Your task to perform on an android device: Search for razer blade on walmart, select the first entry, add it to the cart, then select checkout. Image 0: 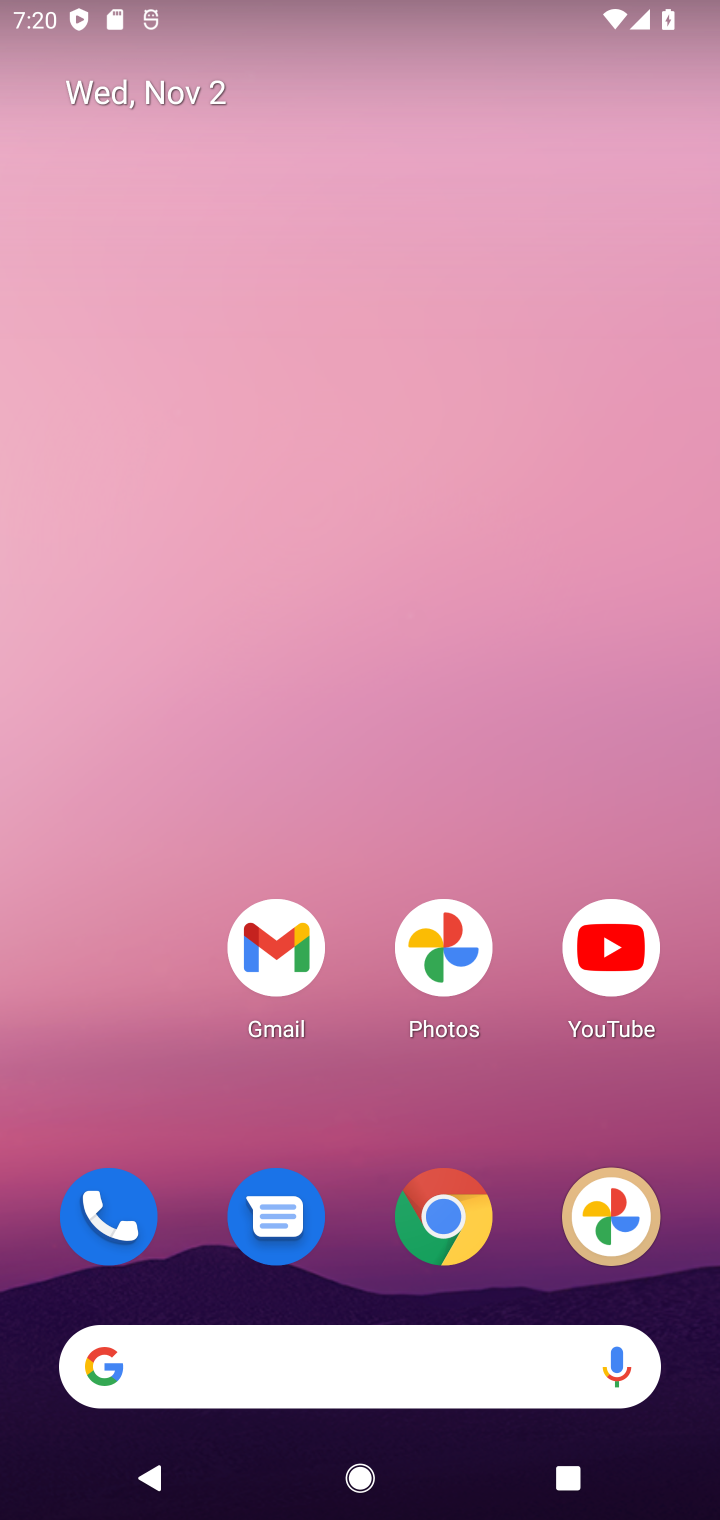
Step 0: click (465, 1190)
Your task to perform on an android device: Search for razer blade on walmart, select the first entry, add it to the cart, then select checkout. Image 1: 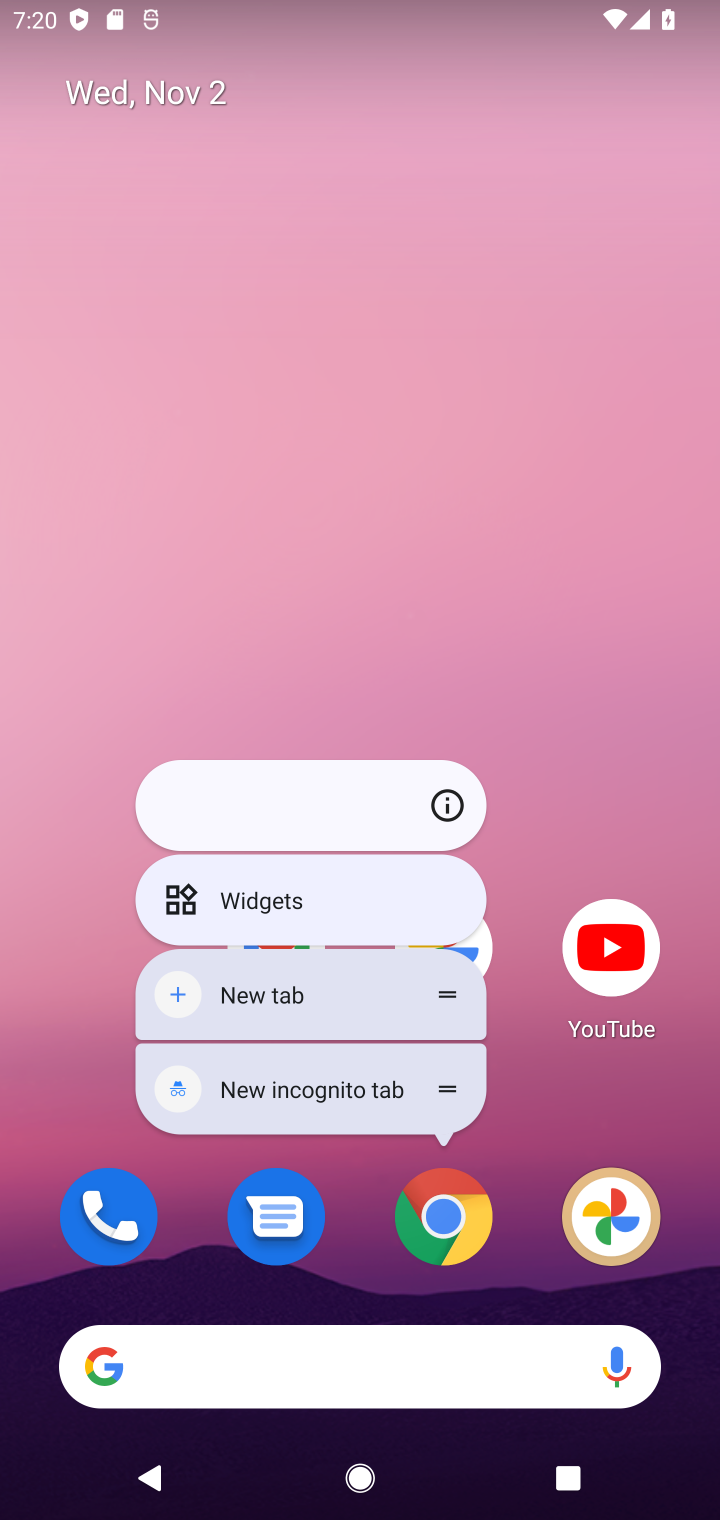
Step 1: click (465, 1190)
Your task to perform on an android device: Search for razer blade on walmart, select the first entry, add it to the cart, then select checkout. Image 2: 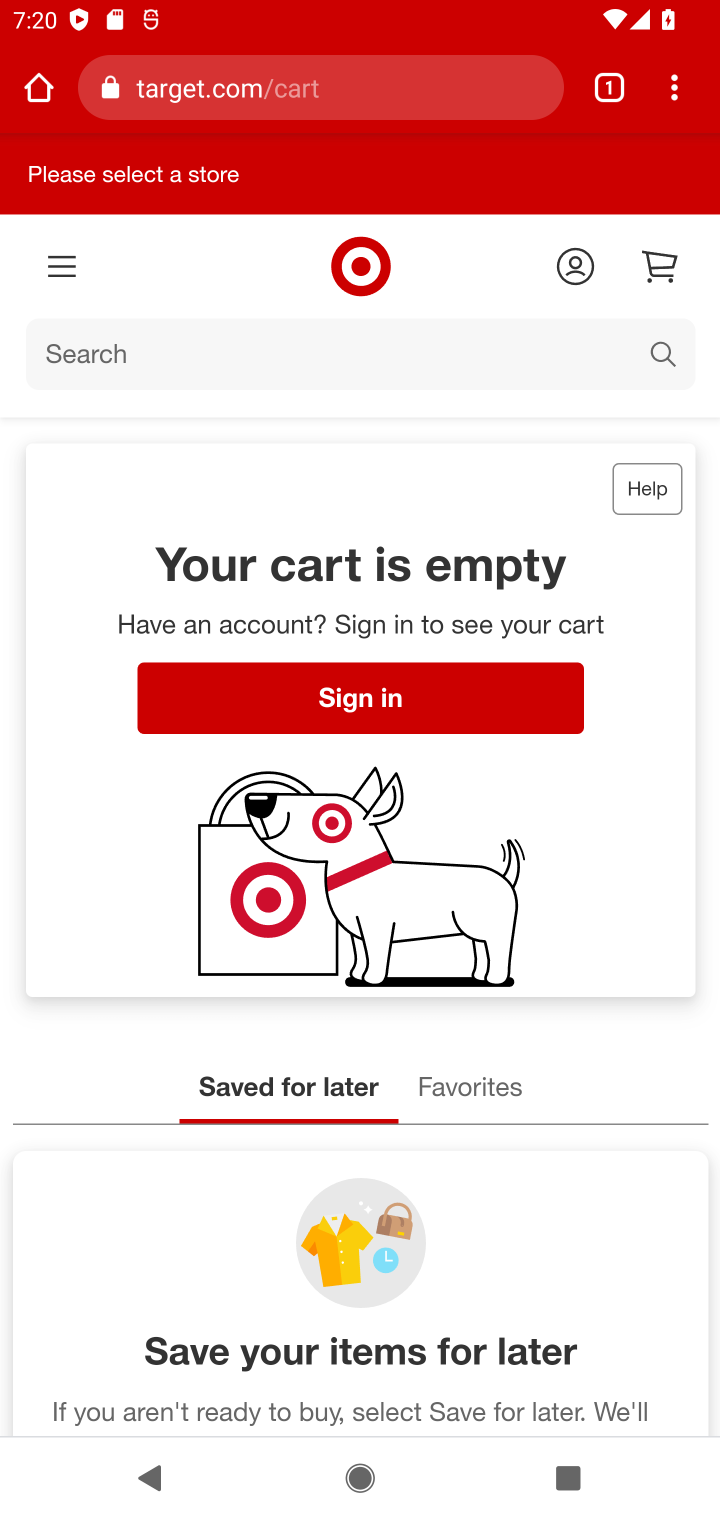
Step 2: click (318, 72)
Your task to perform on an android device: Search for razer blade on walmart, select the first entry, add it to the cart, then select checkout. Image 3: 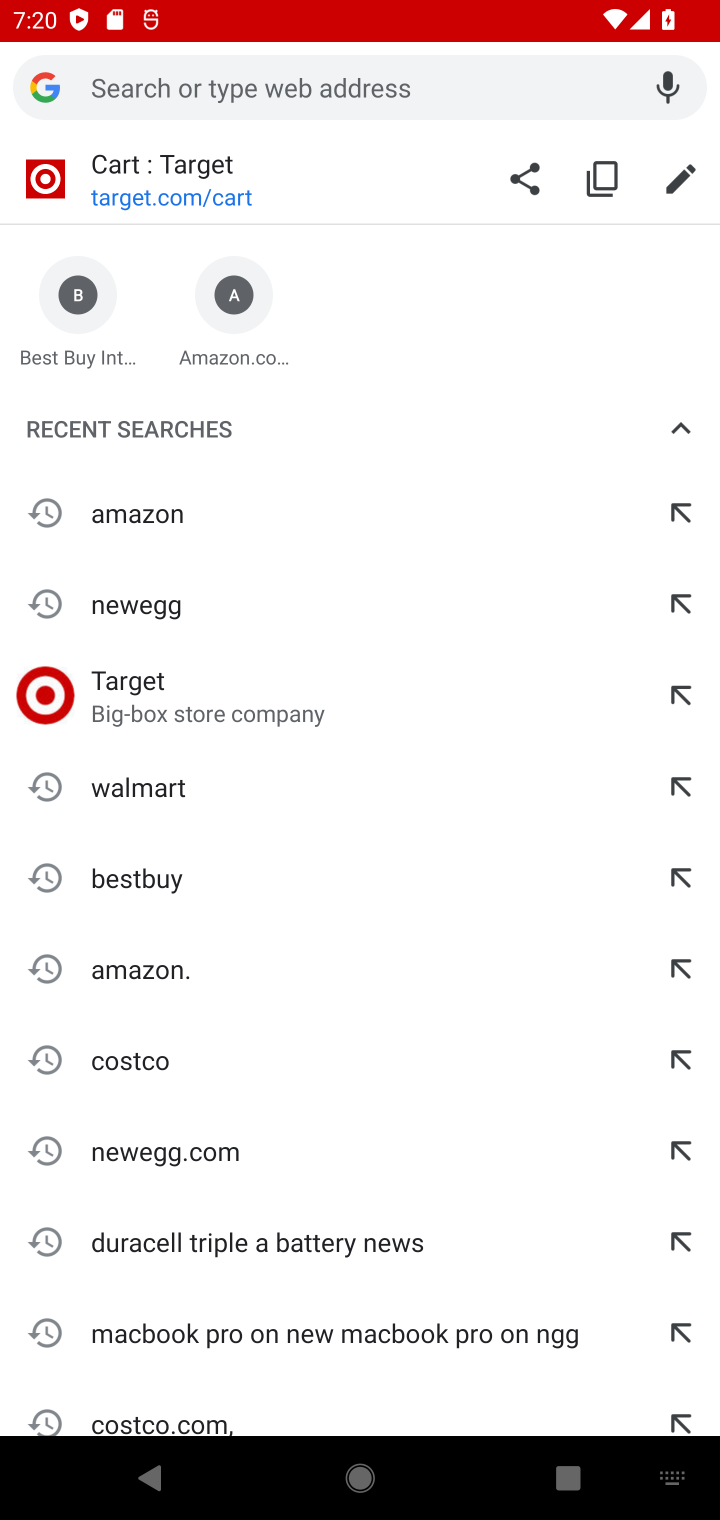
Step 3: type "walmart"
Your task to perform on an android device: Search for razer blade on walmart, select the first entry, add it to the cart, then select checkout. Image 4: 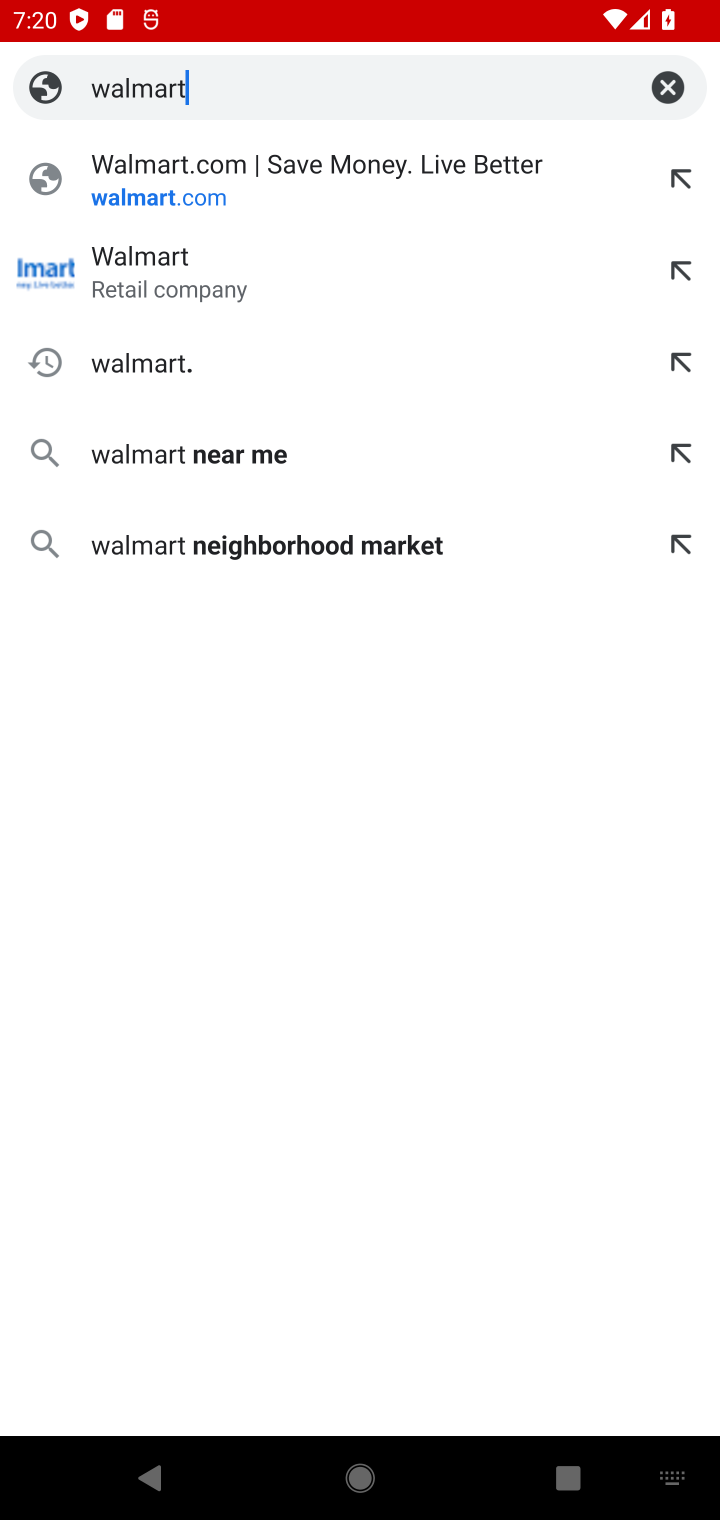
Step 4: click (384, 181)
Your task to perform on an android device: Search for razer blade on walmart, select the first entry, add it to the cart, then select checkout. Image 5: 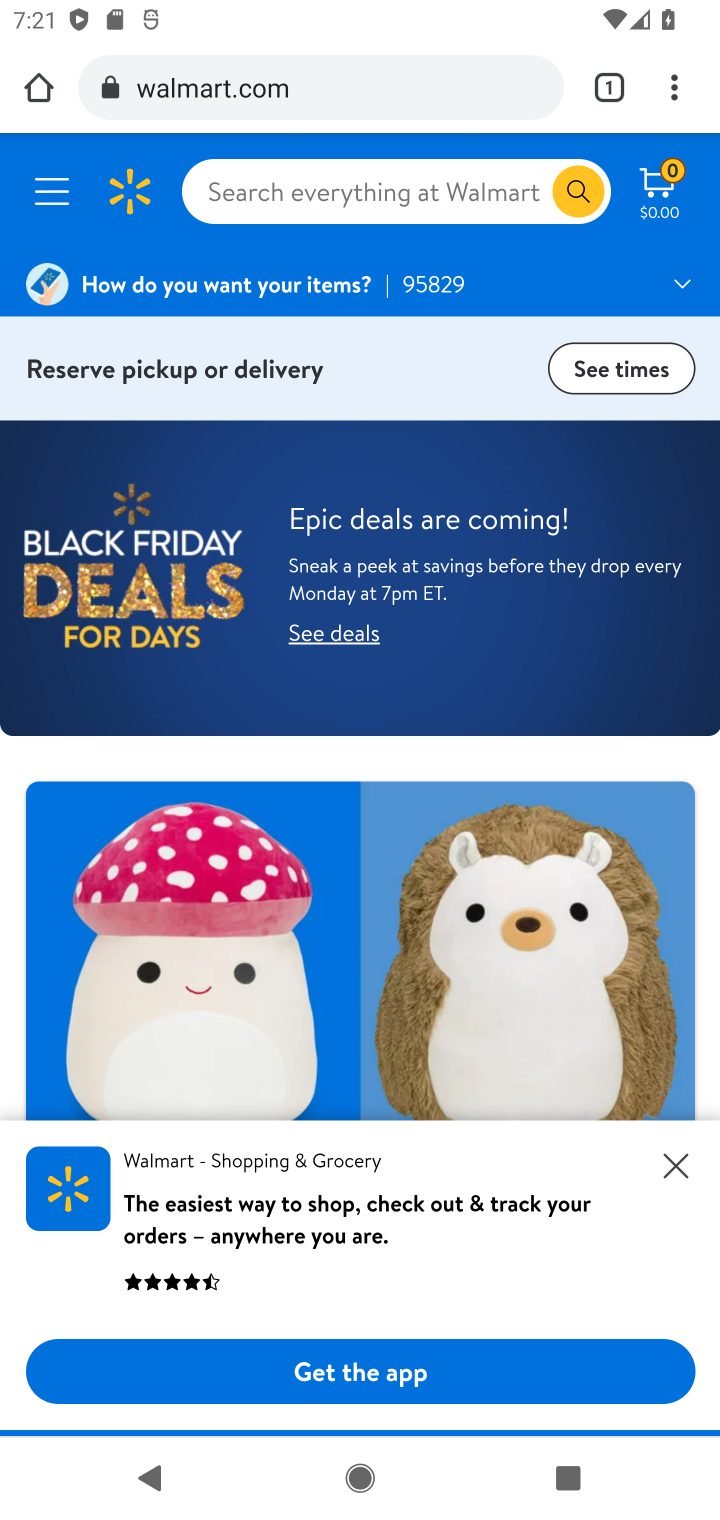
Step 5: click (397, 156)
Your task to perform on an android device: Search for razer blade on walmart, select the first entry, add it to the cart, then select checkout. Image 6: 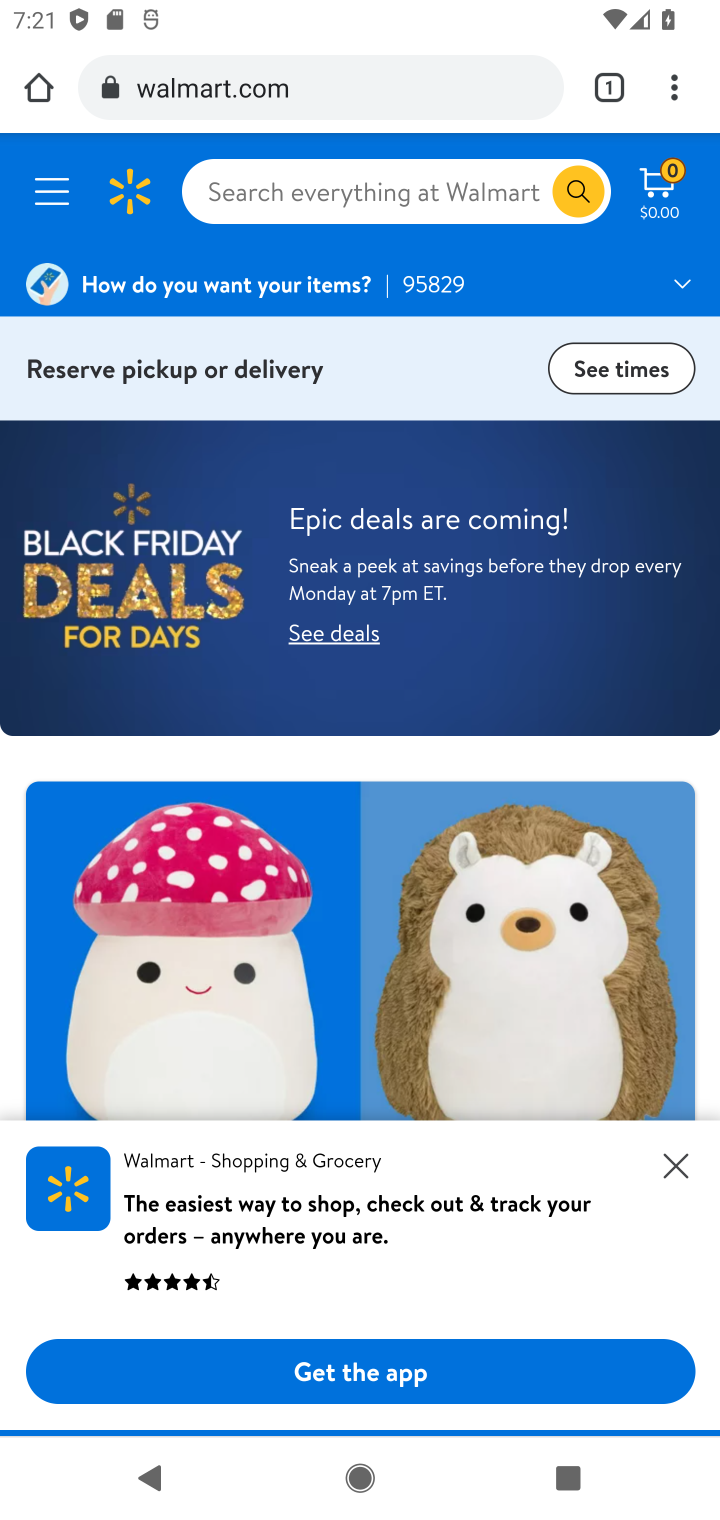
Step 6: click (227, 207)
Your task to perform on an android device: Search for razer blade on walmart, select the first entry, add it to the cart, then select checkout. Image 7: 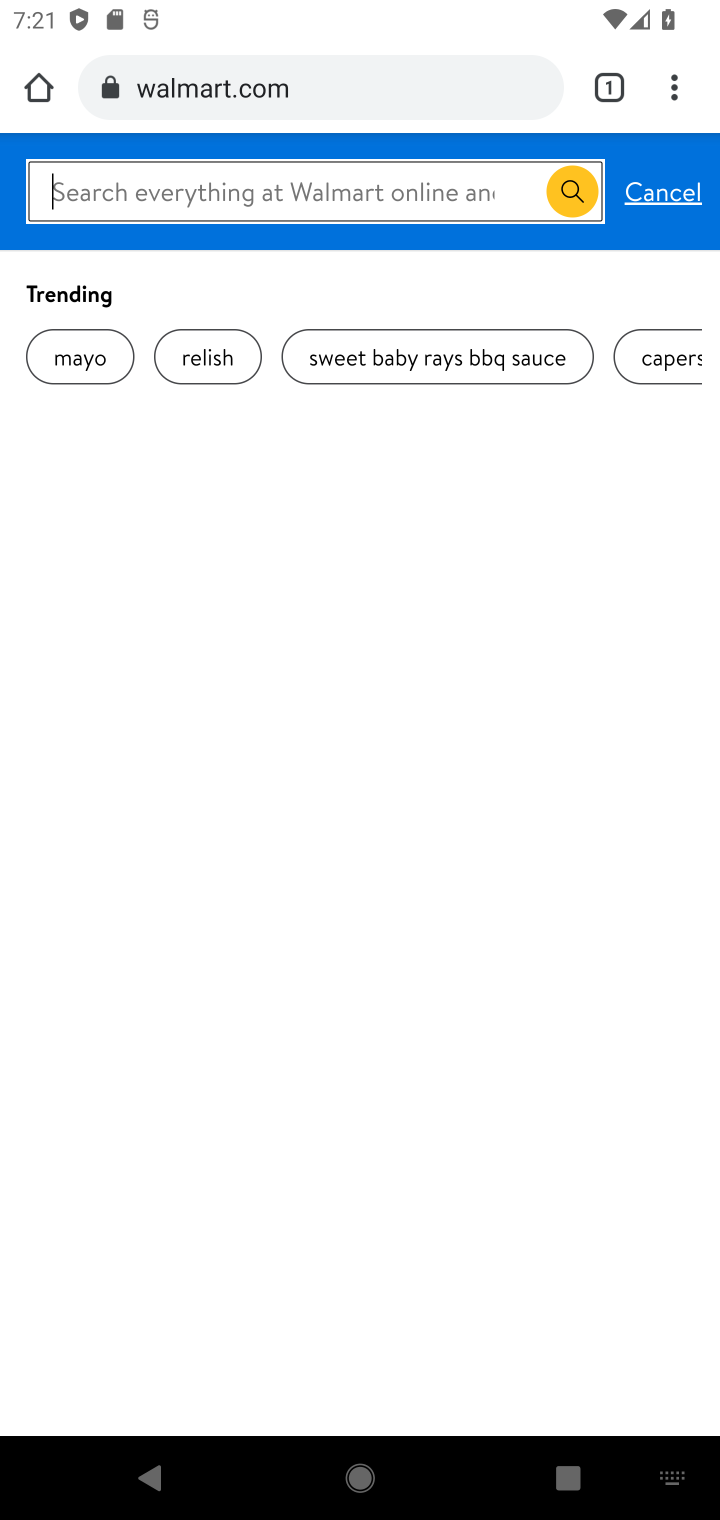
Step 7: type "rzaer blade"
Your task to perform on an android device: Search for razer blade on walmart, select the first entry, add it to the cart, then select checkout. Image 8: 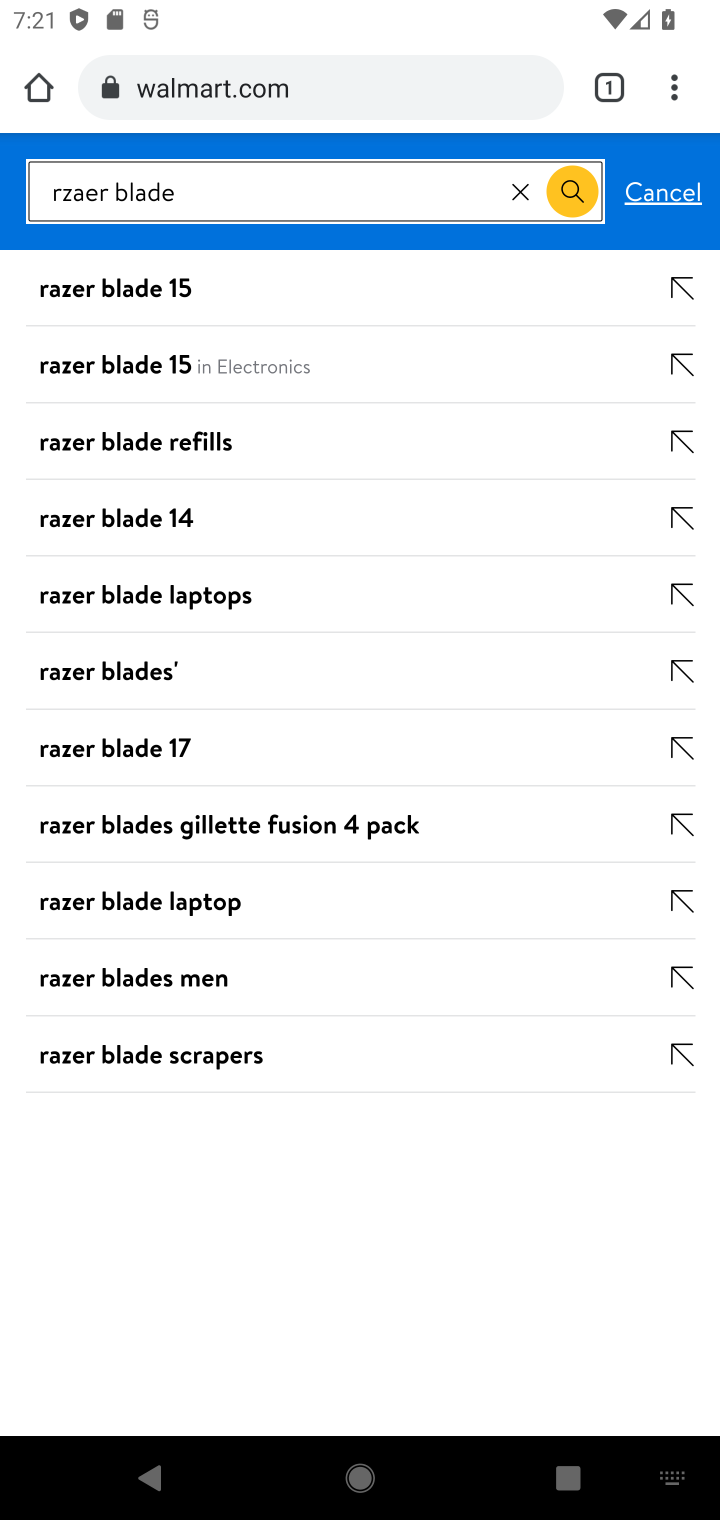
Step 8: press enter
Your task to perform on an android device: Search for razer blade on walmart, select the first entry, add it to the cart, then select checkout. Image 9: 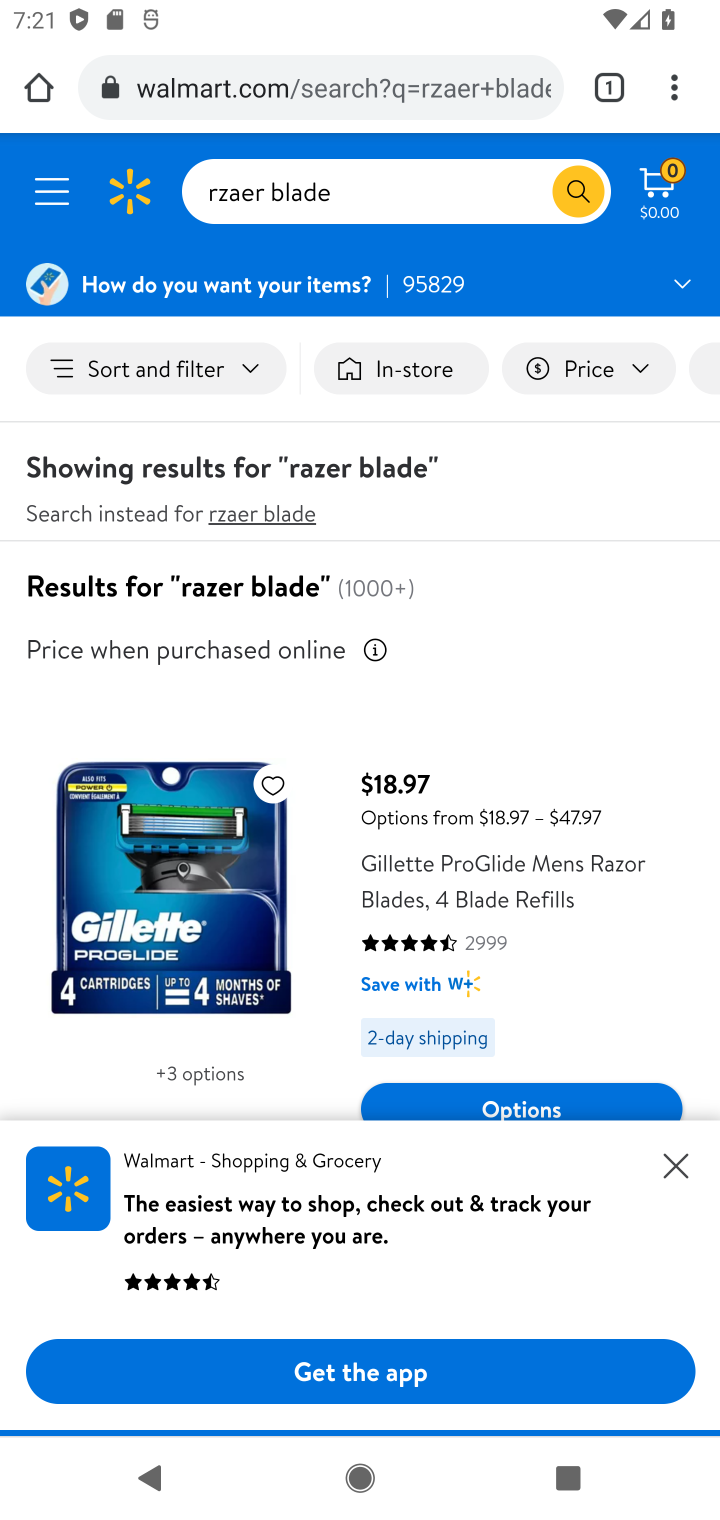
Step 9: click (682, 1161)
Your task to perform on an android device: Search for razer blade on walmart, select the first entry, add it to the cart, then select checkout. Image 10: 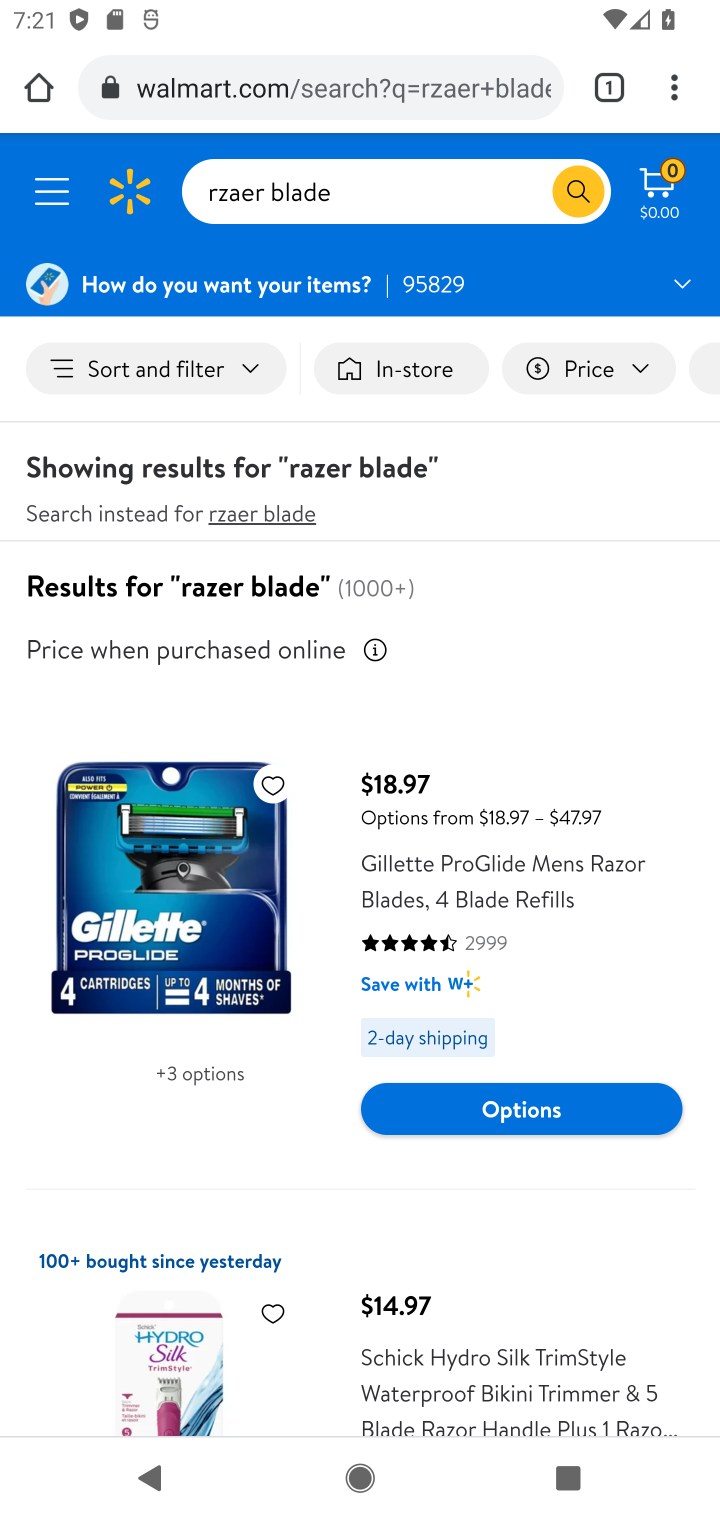
Step 10: click (522, 899)
Your task to perform on an android device: Search for razer blade on walmart, select the first entry, add it to the cart, then select checkout. Image 11: 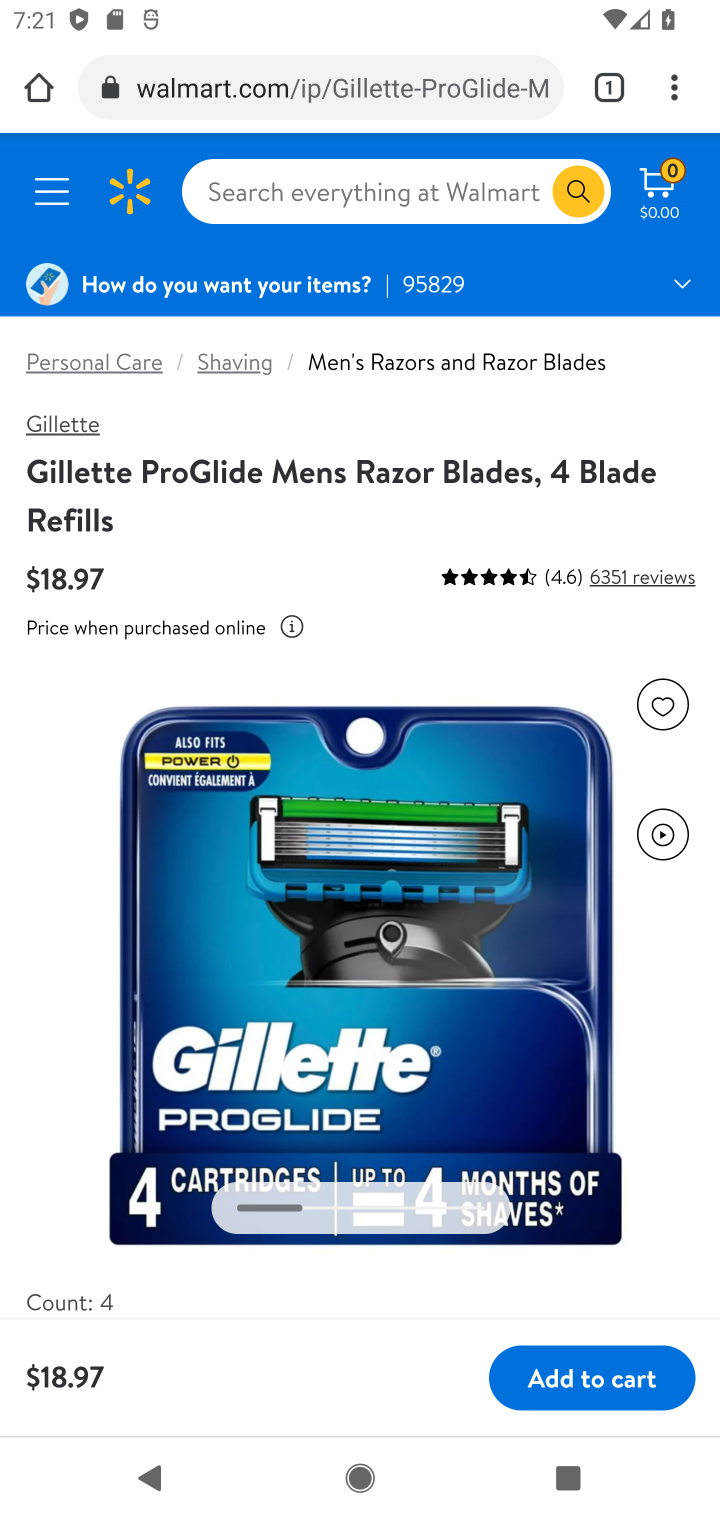
Step 11: click (600, 1376)
Your task to perform on an android device: Search for razer blade on walmart, select the first entry, add it to the cart, then select checkout. Image 12: 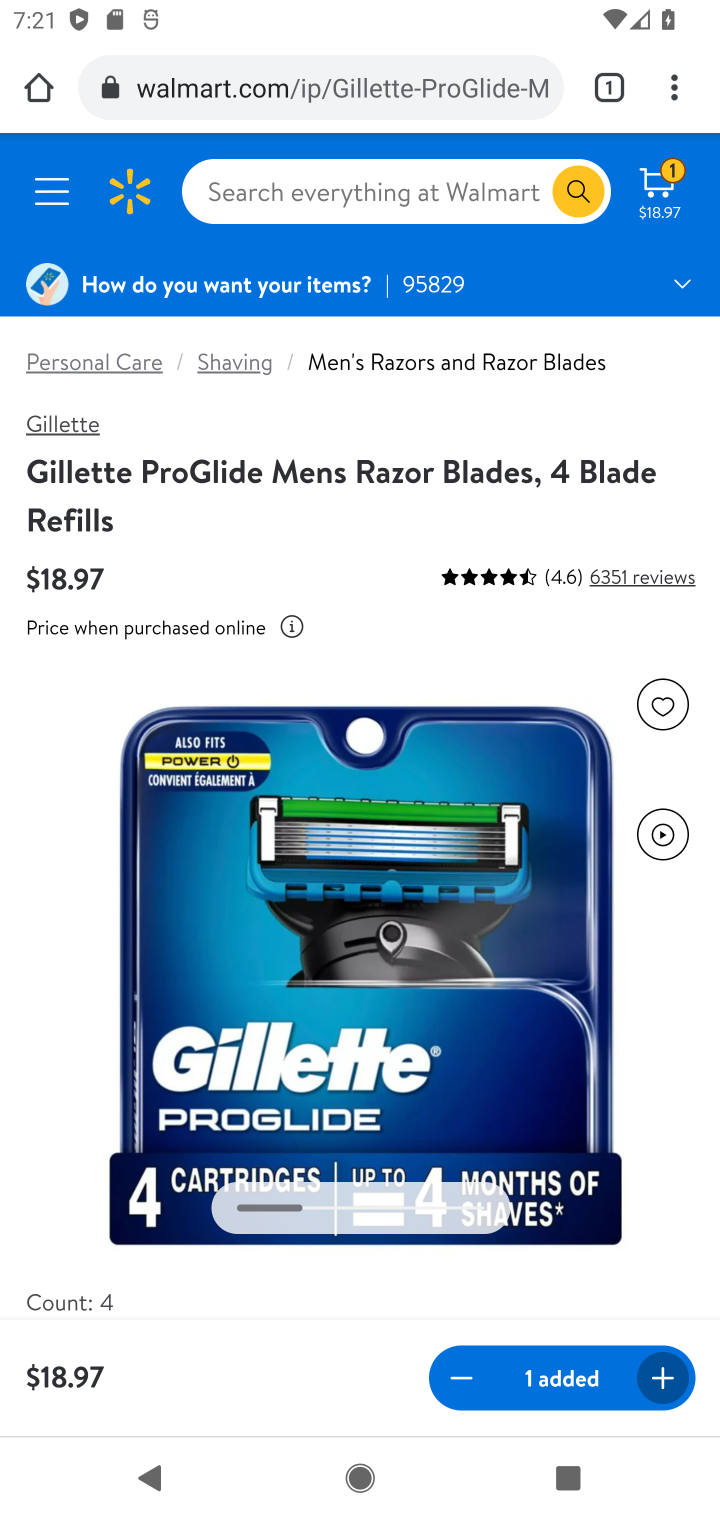
Step 12: click (664, 186)
Your task to perform on an android device: Search for razer blade on walmart, select the first entry, add it to the cart, then select checkout. Image 13: 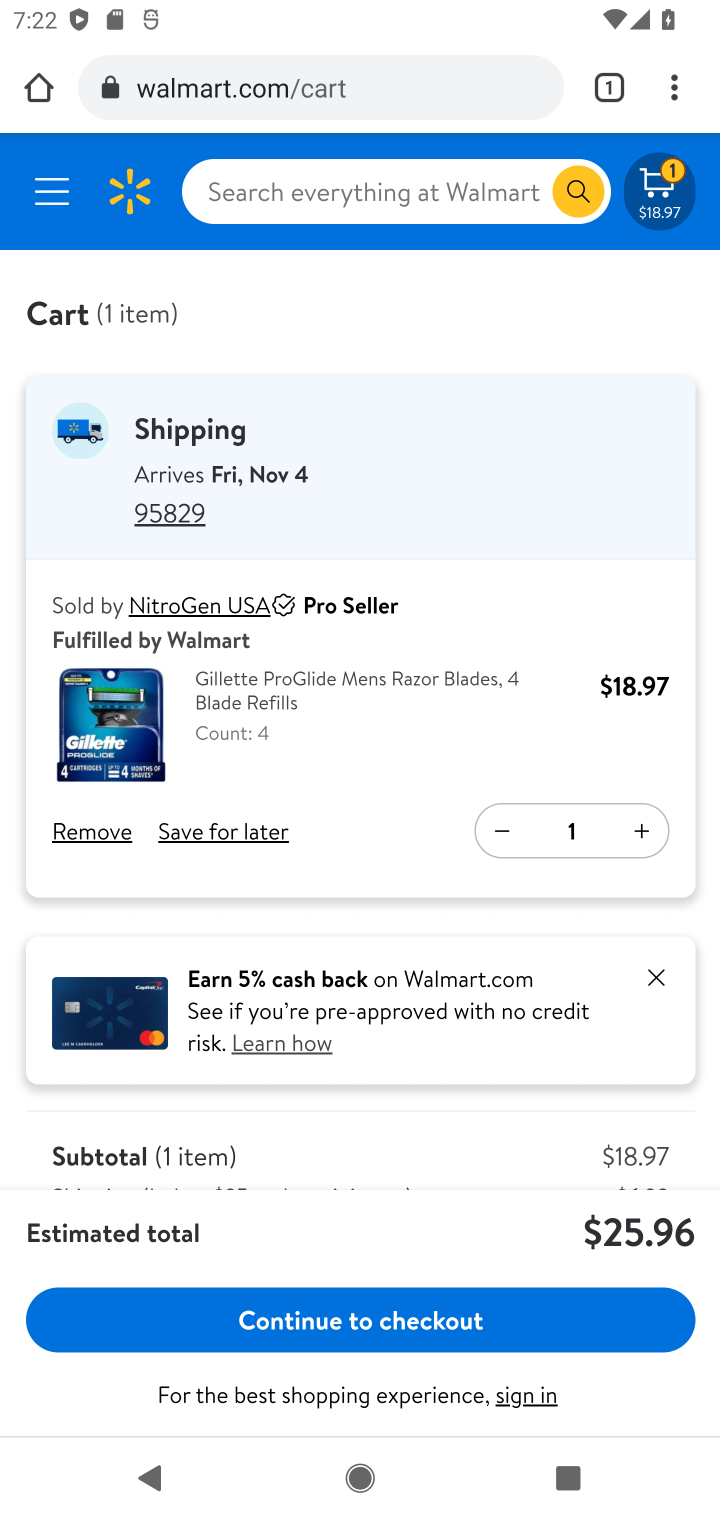
Step 13: click (434, 1306)
Your task to perform on an android device: Search for razer blade on walmart, select the first entry, add it to the cart, then select checkout. Image 14: 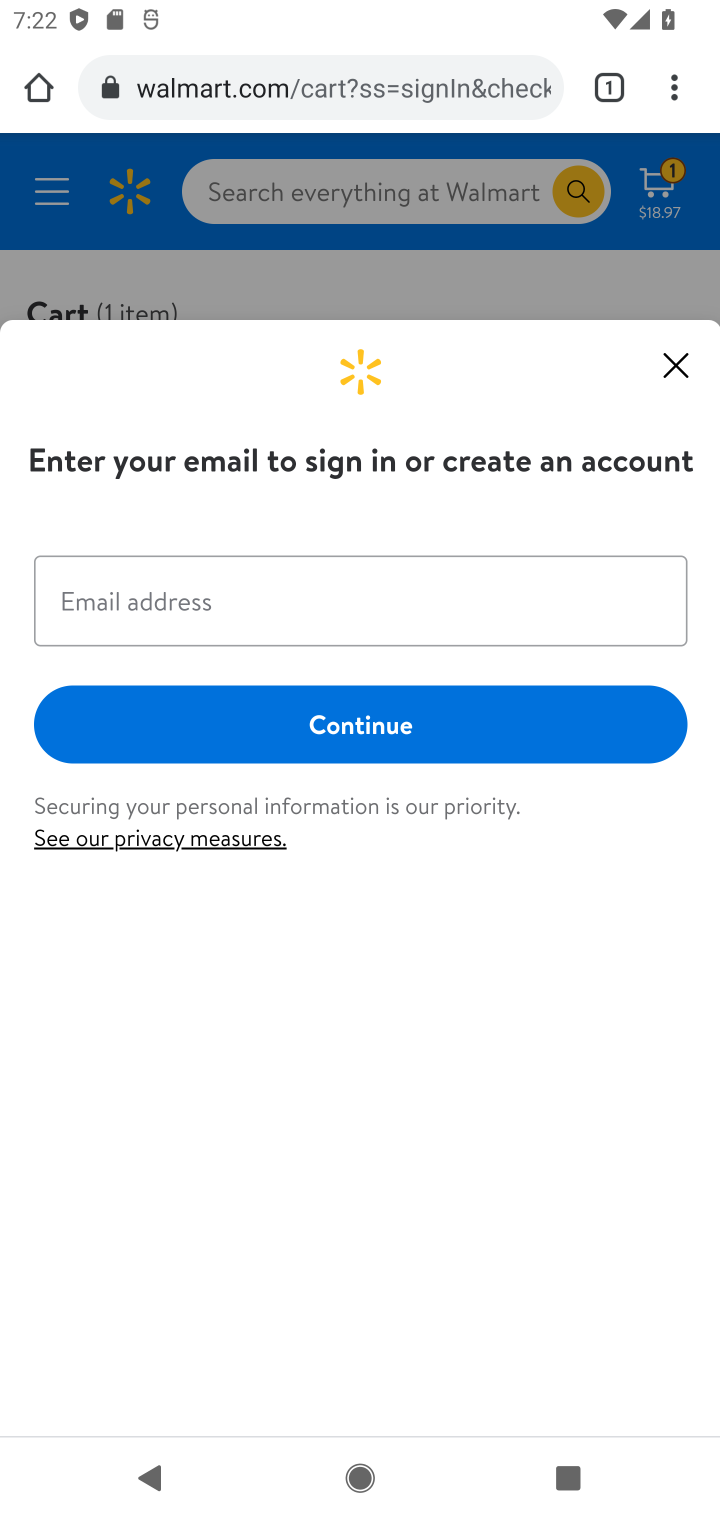
Step 14: task complete